Your task to perform on an android device: turn on translation in the chrome app Image 0: 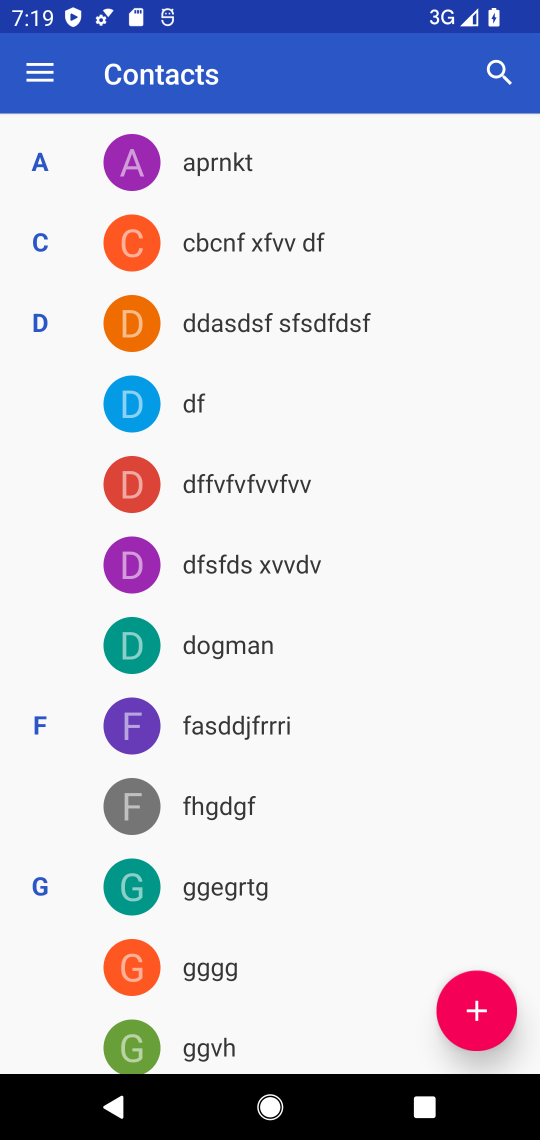
Step 0: press home button
Your task to perform on an android device: turn on translation in the chrome app Image 1: 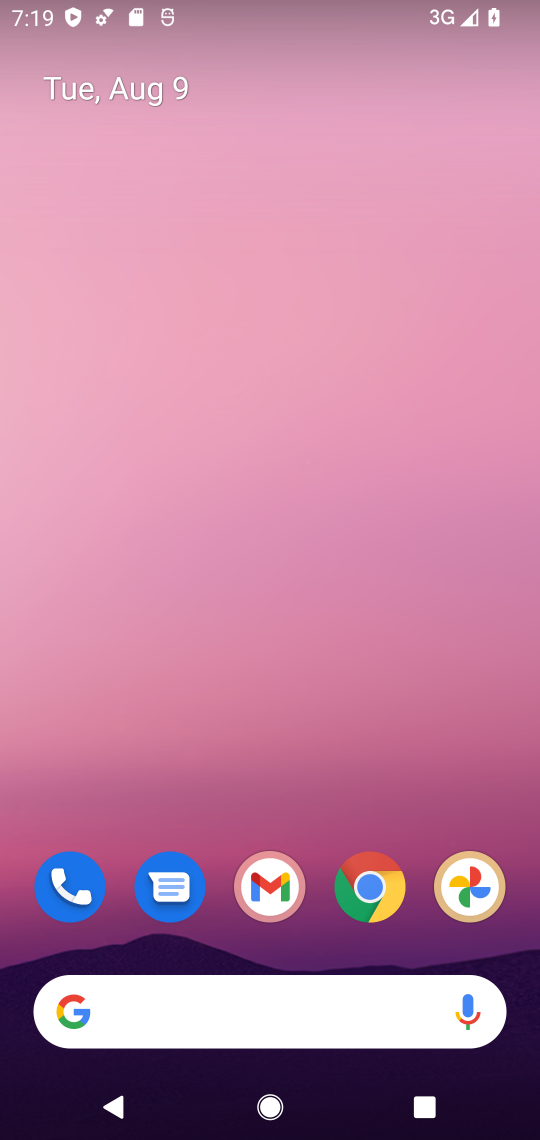
Step 1: click (367, 884)
Your task to perform on an android device: turn on translation in the chrome app Image 2: 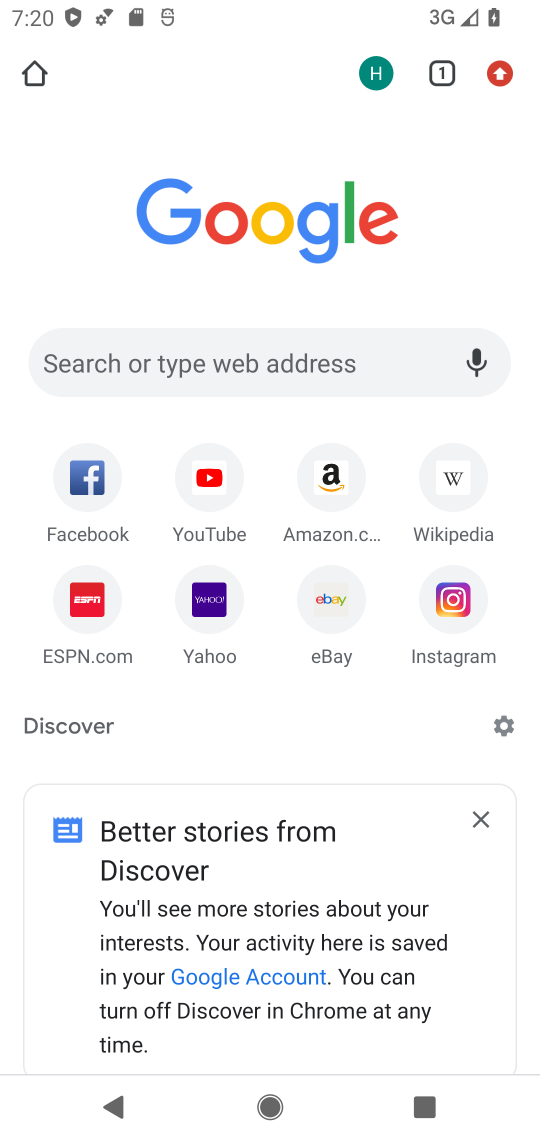
Step 2: click (500, 68)
Your task to perform on an android device: turn on translation in the chrome app Image 3: 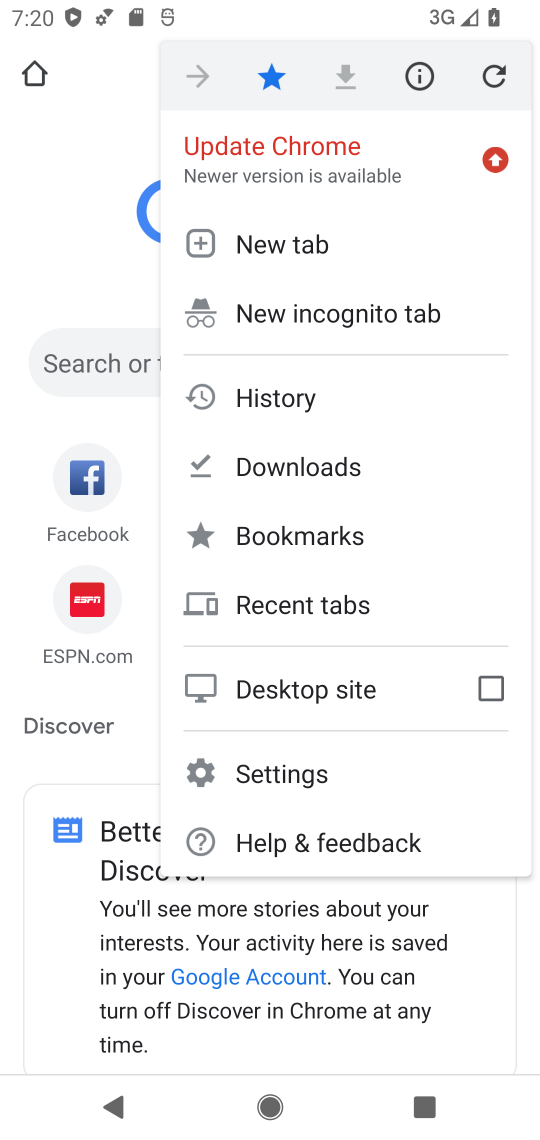
Step 3: click (288, 774)
Your task to perform on an android device: turn on translation in the chrome app Image 4: 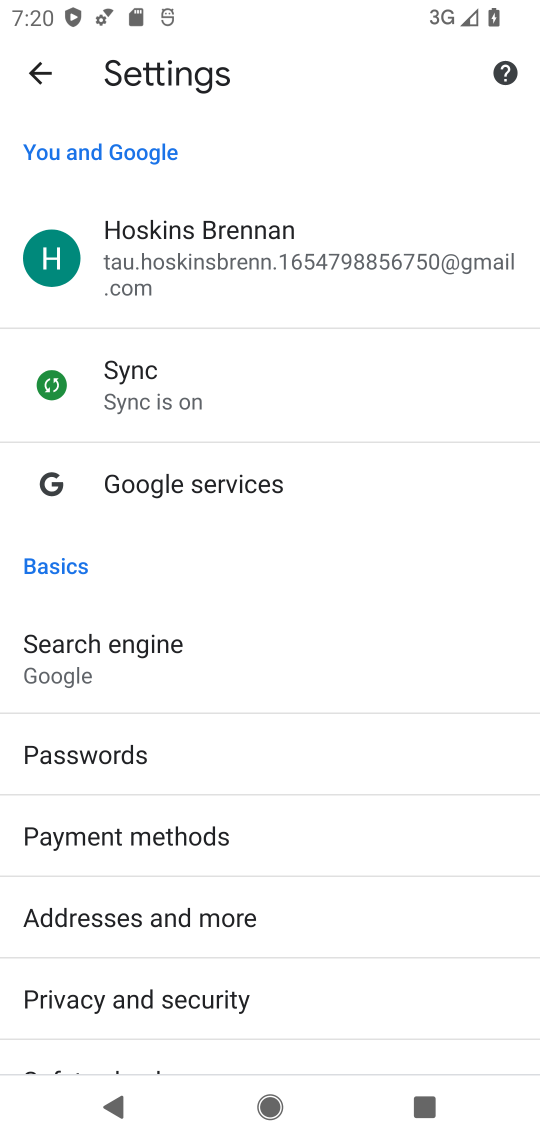
Step 4: drag from (313, 890) to (362, 103)
Your task to perform on an android device: turn on translation in the chrome app Image 5: 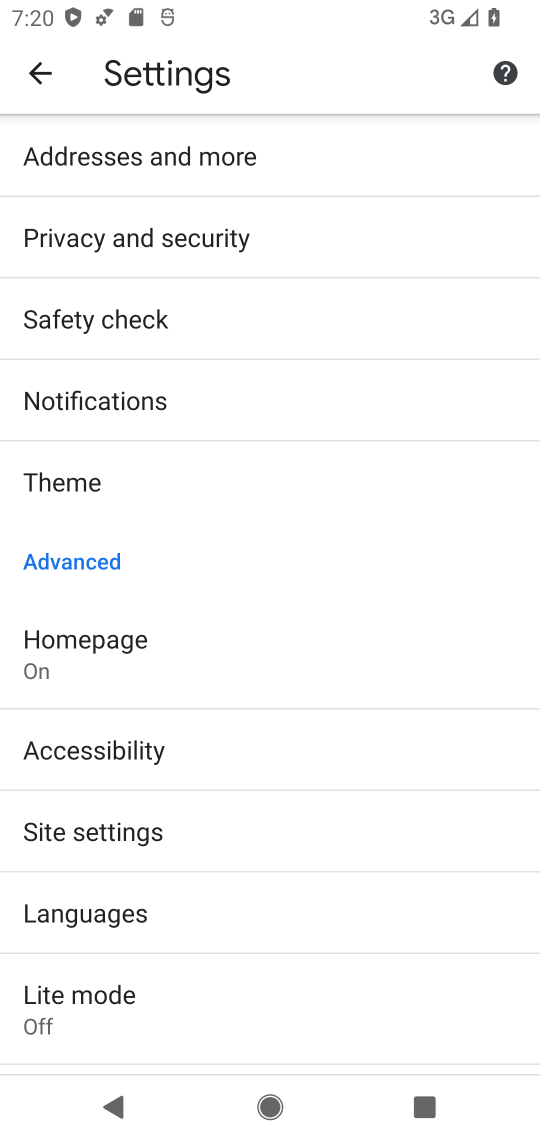
Step 5: click (207, 910)
Your task to perform on an android device: turn on translation in the chrome app Image 6: 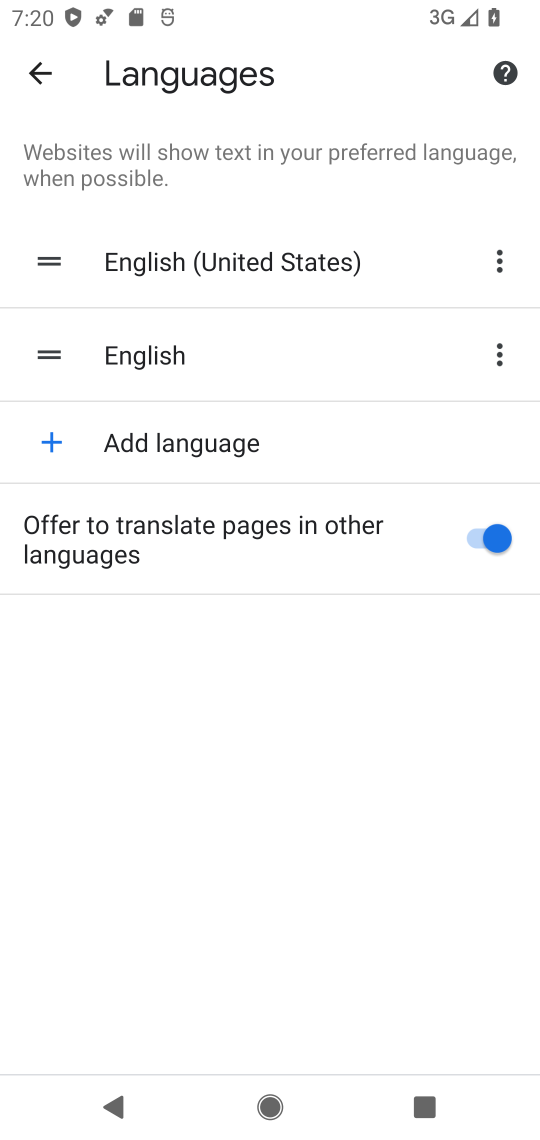
Step 6: task complete